Your task to perform on an android device: clear all cookies in the chrome app Image 0: 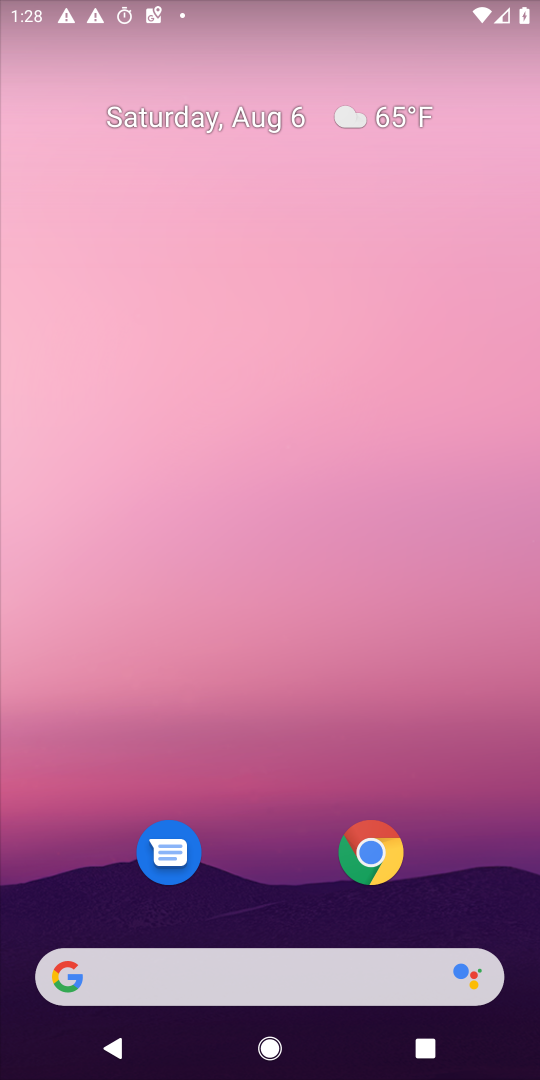
Step 0: press home button
Your task to perform on an android device: clear all cookies in the chrome app Image 1: 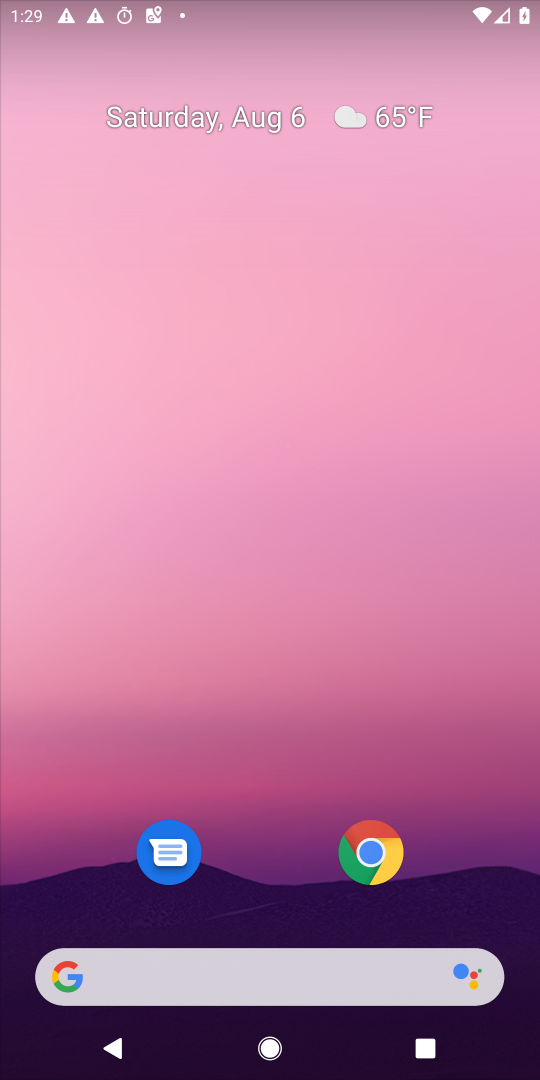
Step 1: drag from (313, 952) to (407, 346)
Your task to perform on an android device: clear all cookies in the chrome app Image 2: 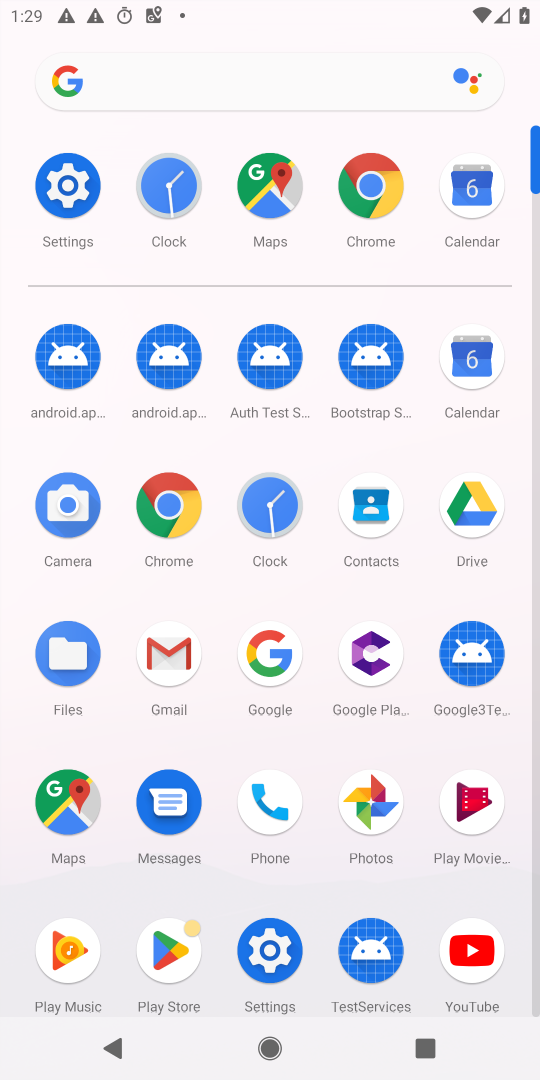
Step 2: click (376, 193)
Your task to perform on an android device: clear all cookies in the chrome app Image 3: 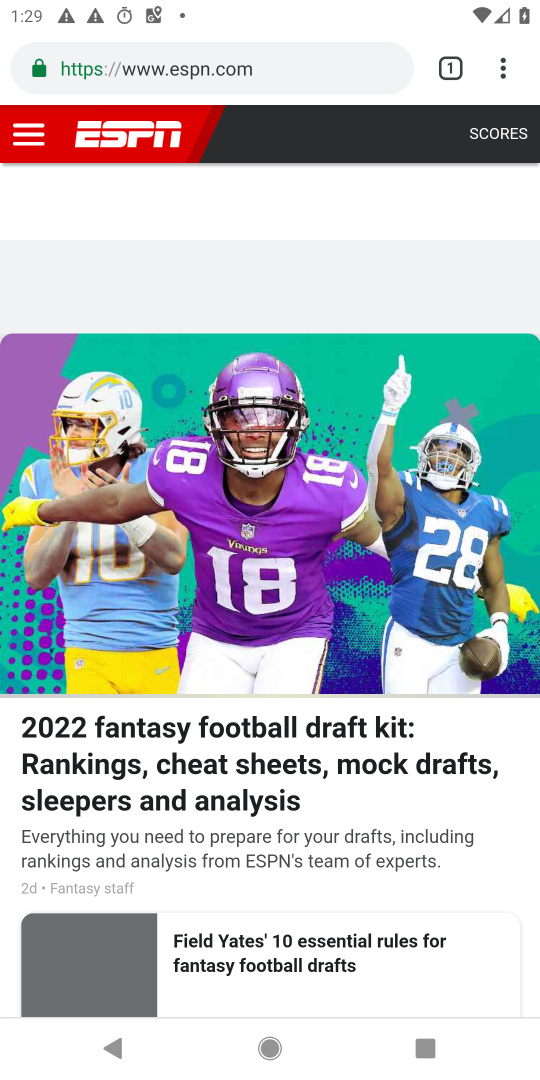
Step 3: click (508, 60)
Your task to perform on an android device: clear all cookies in the chrome app Image 4: 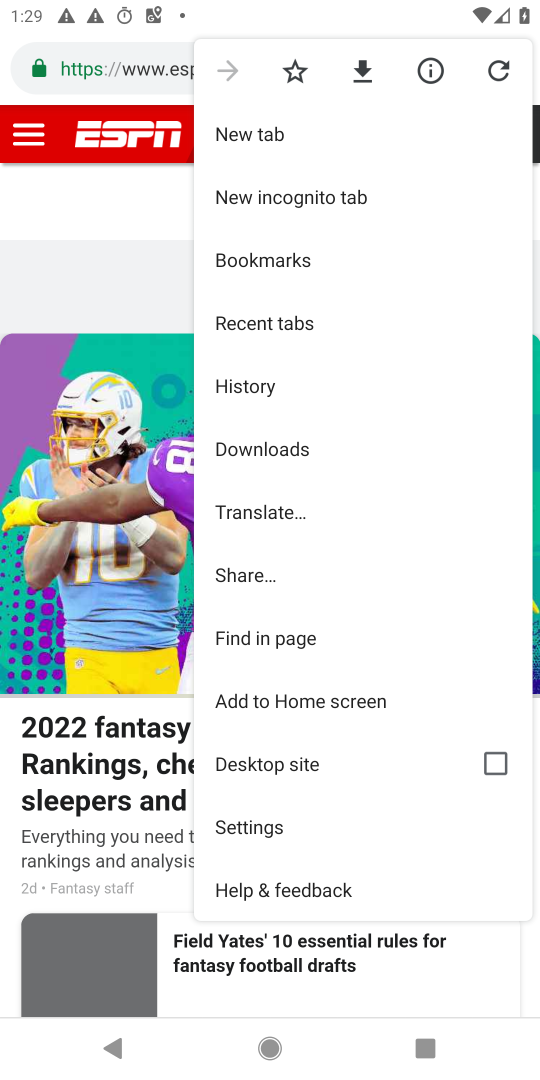
Step 4: click (270, 831)
Your task to perform on an android device: clear all cookies in the chrome app Image 5: 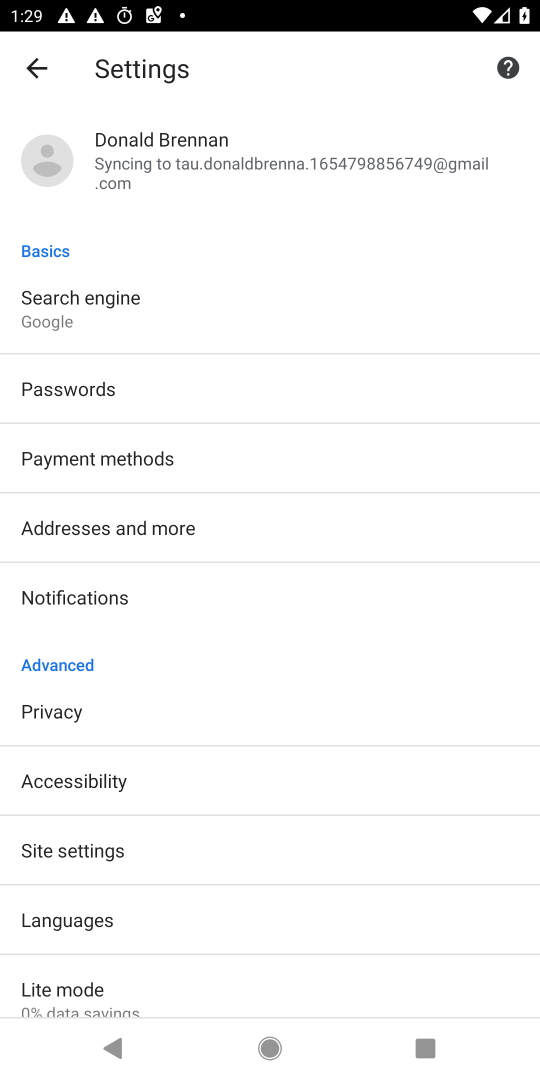
Step 5: click (79, 710)
Your task to perform on an android device: clear all cookies in the chrome app Image 6: 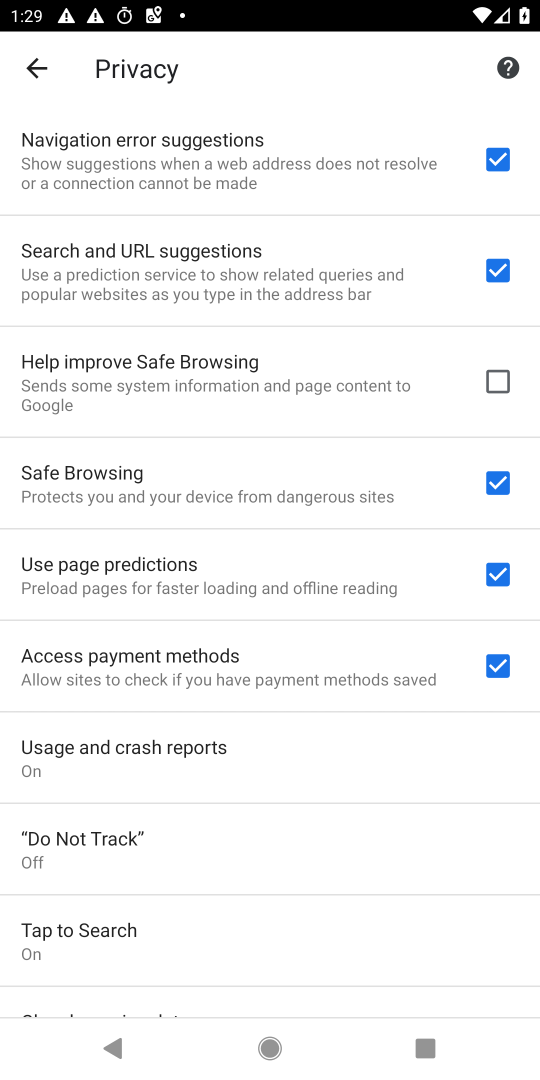
Step 6: drag from (134, 849) to (209, 506)
Your task to perform on an android device: clear all cookies in the chrome app Image 7: 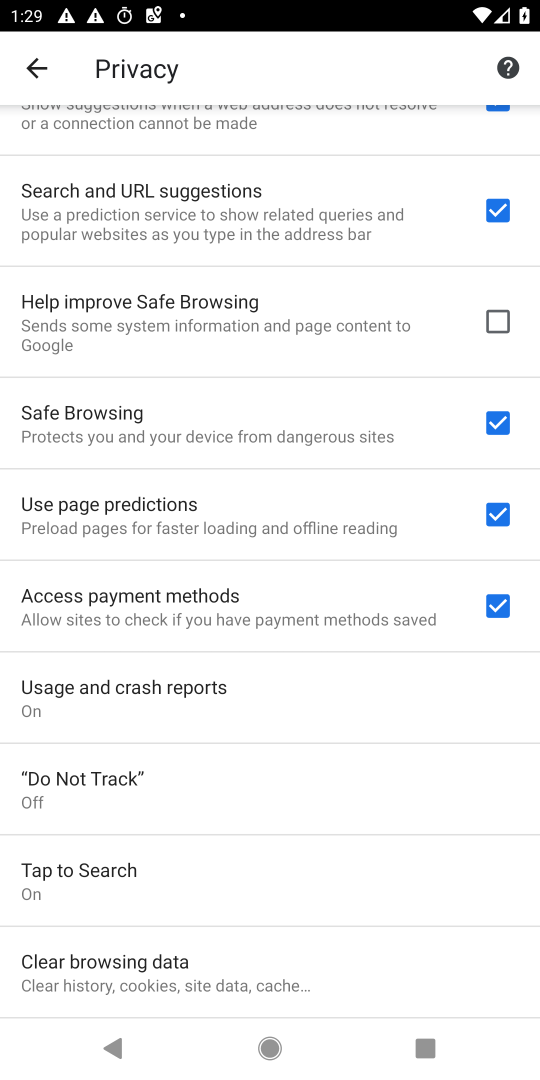
Step 7: click (90, 946)
Your task to perform on an android device: clear all cookies in the chrome app Image 8: 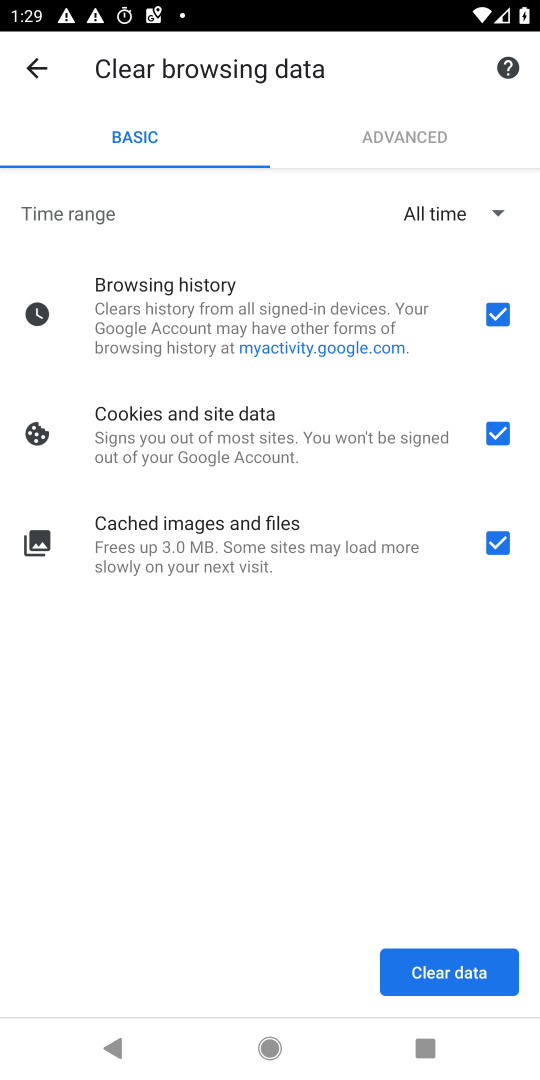
Step 8: click (434, 953)
Your task to perform on an android device: clear all cookies in the chrome app Image 9: 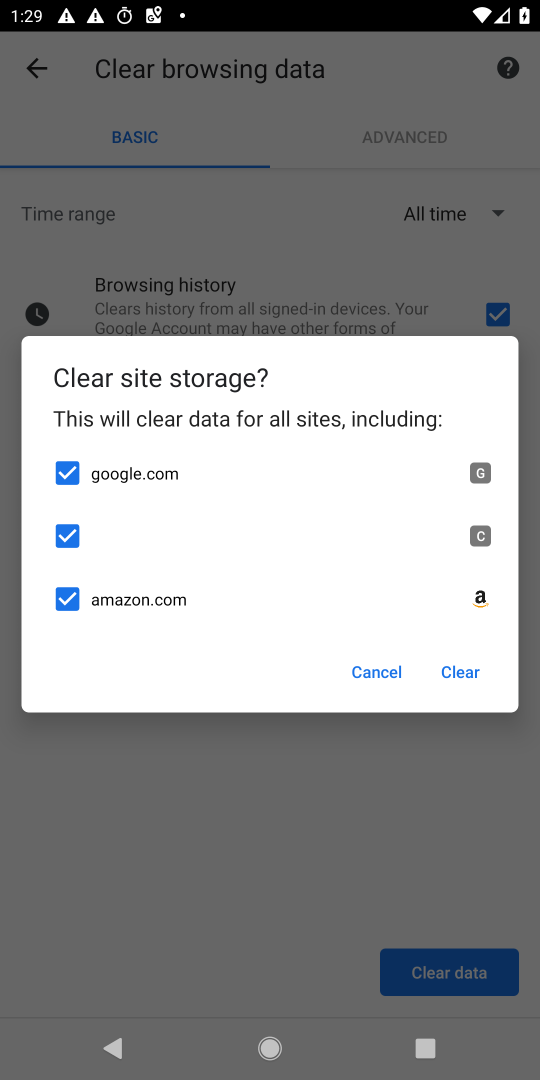
Step 9: click (462, 672)
Your task to perform on an android device: clear all cookies in the chrome app Image 10: 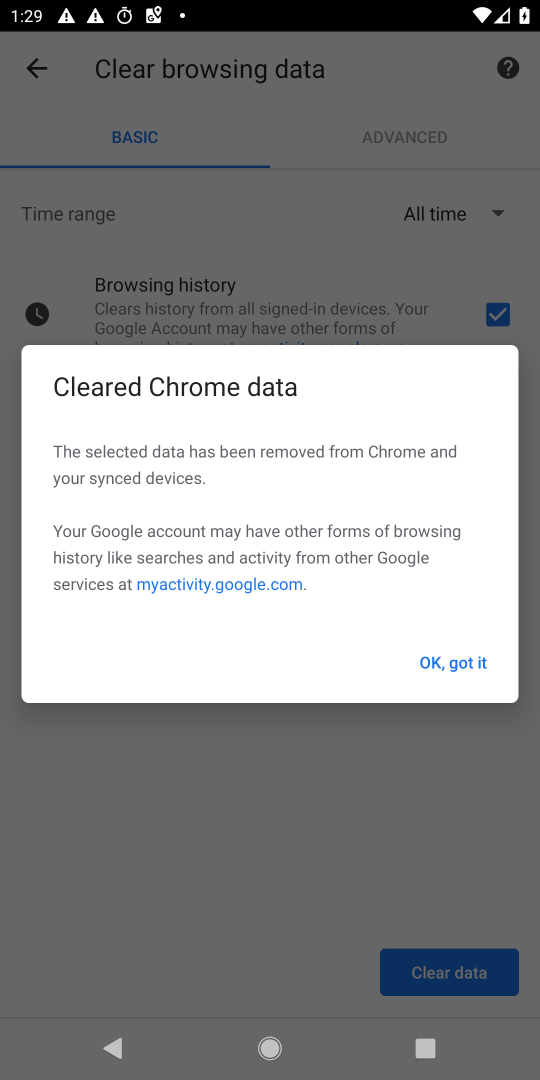
Step 10: task complete